Your task to perform on an android device: Go to notification settings Image 0: 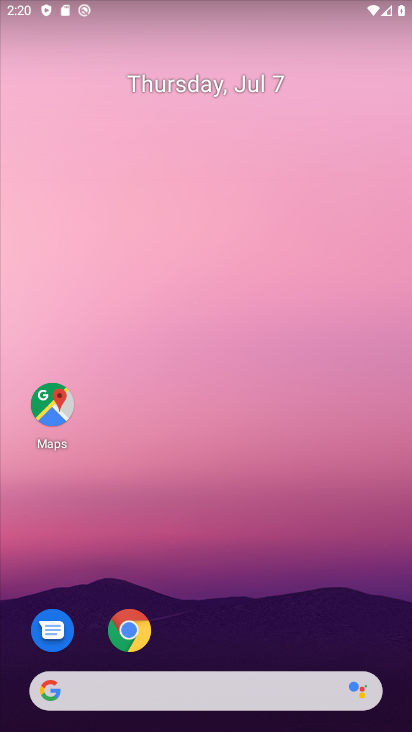
Step 0: drag from (190, 662) to (314, 100)
Your task to perform on an android device: Go to notification settings Image 1: 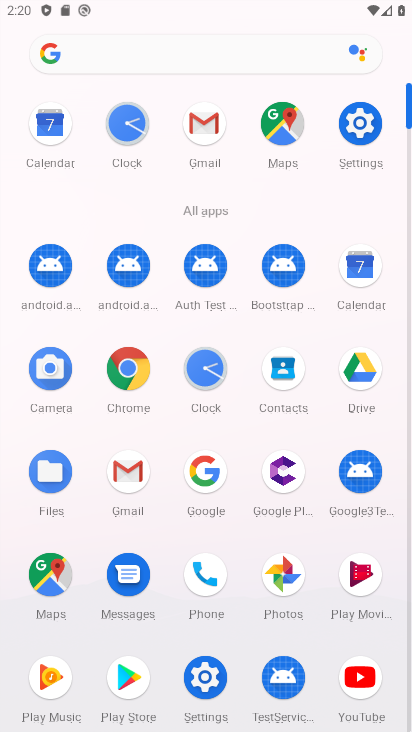
Step 1: click (363, 128)
Your task to perform on an android device: Go to notification settings Image 2: 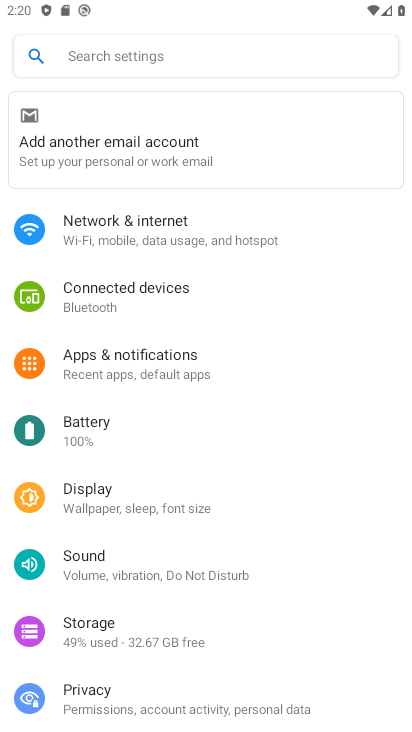
Step 2: click (96, 373)
Your task to perform on an android device: Go to notification settings Image 3: 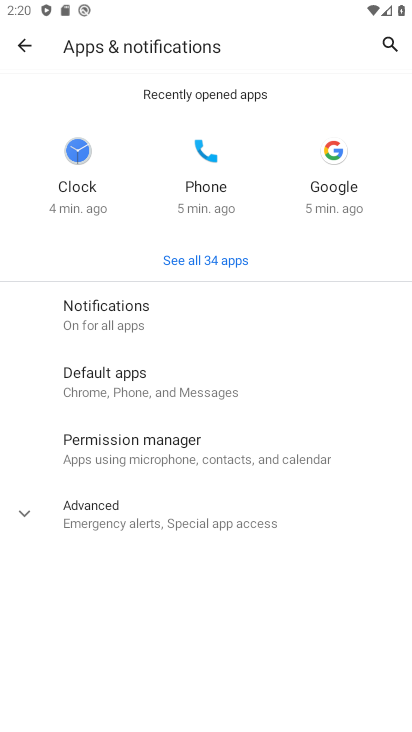
Step 3: drag from (197, 636) to (232, 373)
Your task to perform on an android device: Go to notification settings Image 4: 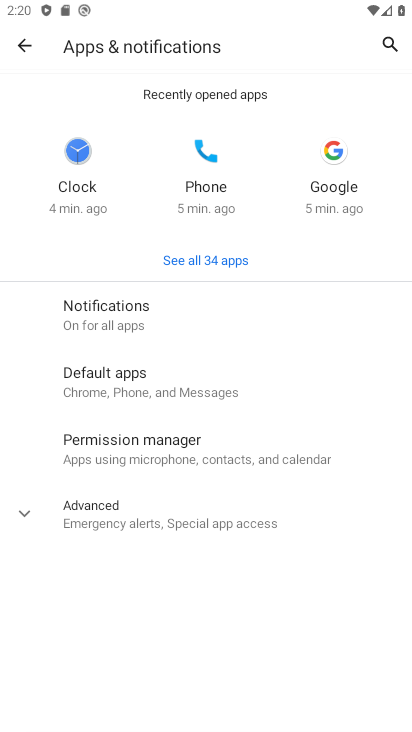
Step 4: click (128, 528)
Your task to perform on an android device: Go to notification settings Image 5: 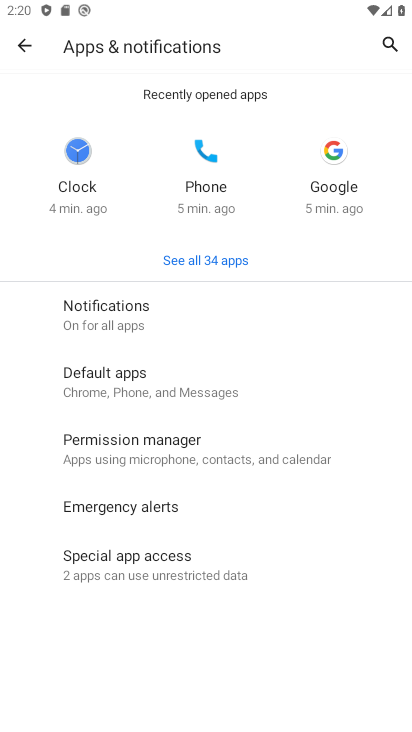
Step 5: task complete